Your task to perform on an android device: turn on showing notifications on the lock screen Image 0: 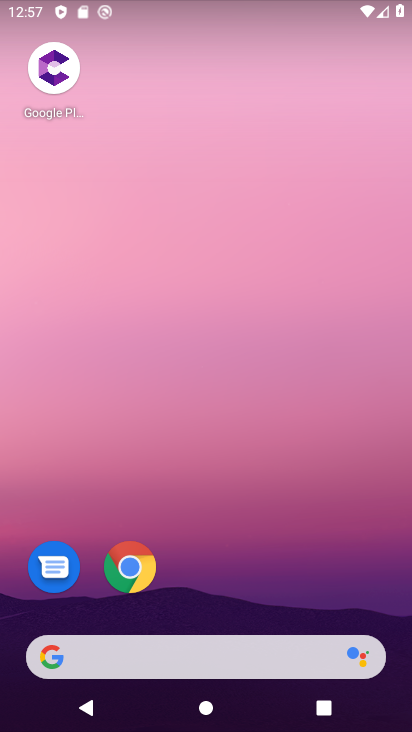
Step 0: drag from (224, 604) to (300, 5)
Your task to perform on an android device: turn on showing notifications on the lock screen Image 1: 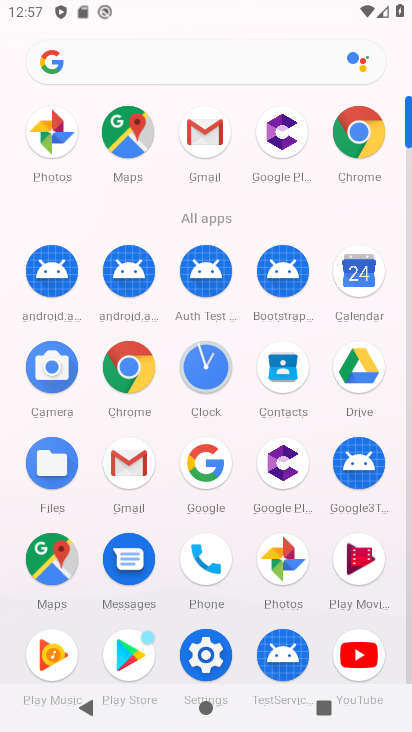
Step 1: click (218, 654)
Your task to perform on an android device: turn on showing notifications on the lock screen Image 2: 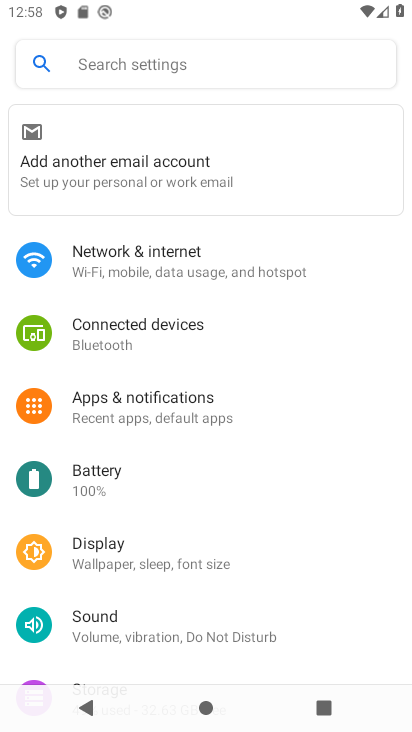
Step 2: click (165, 403)
Your task to perform on an android device: turn on showing notifications on the lock screen Image 3: 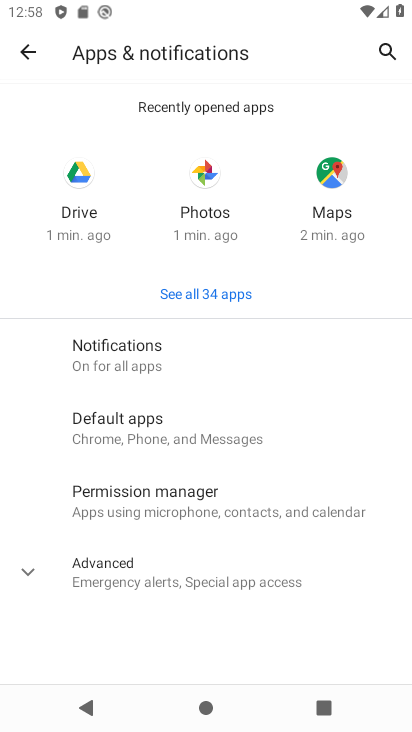
Step 3: click (116, 363)
Your task to perform on an android device: turn on showing notifications on the lock screen Image 4: 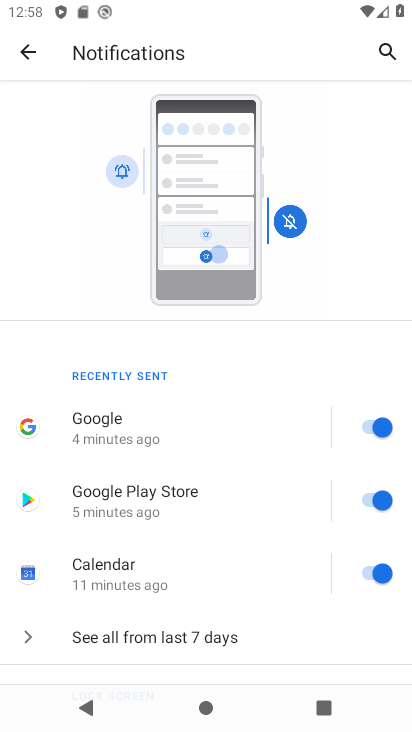
Step 4: drag from (160, 570) to (177, 113)
Your task to perform on an android device: turn on showing notifications on the lock screen Image 5: 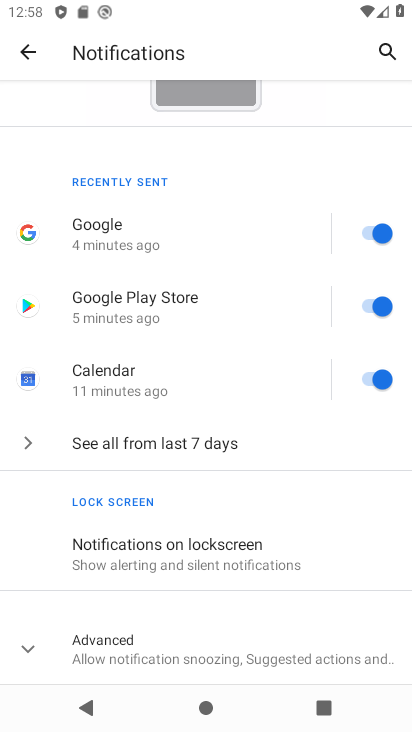
Step 5: click (180, 544)
Your task to perform on an android device: turn on showing notifications on the lock screen Image 6: 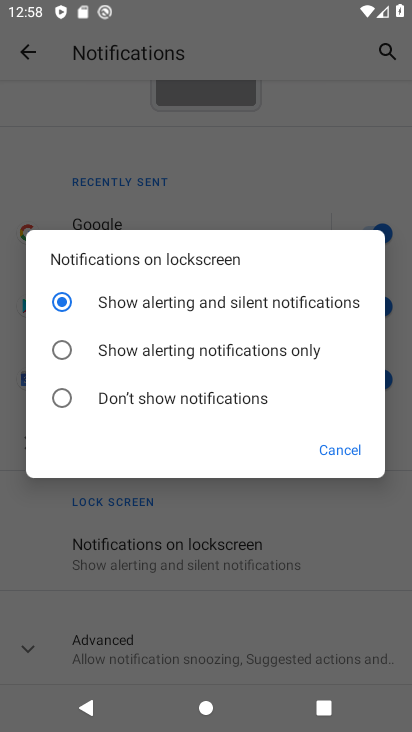
Step 6: task complete